Your task to perform on an android device: Clear all items from cart on target. Search for rayovac triple a on target, select the first entry, and add it to the cart. Image 0: 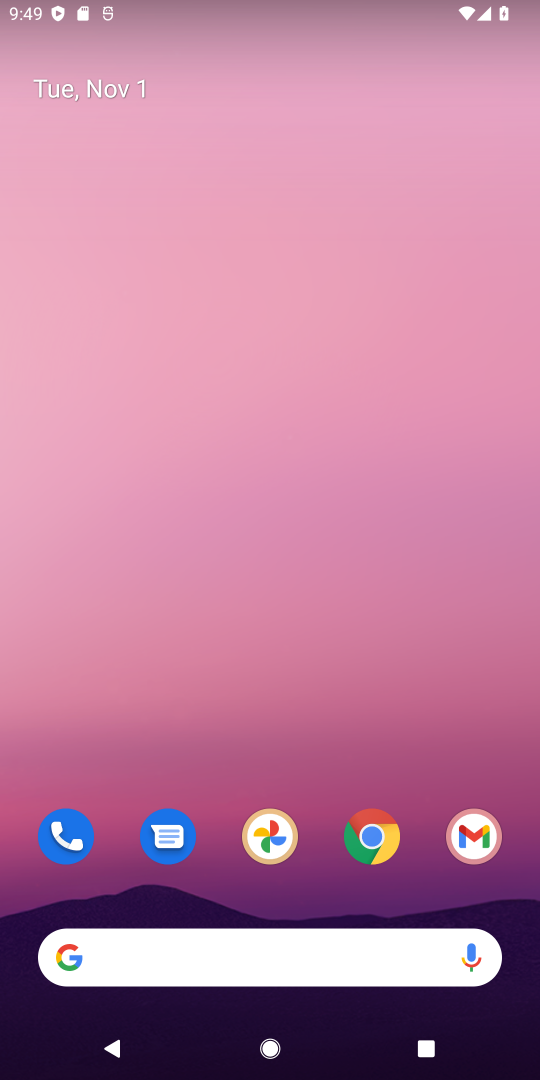
Step 0: click (372, 851)
Your task to perform on an android device: Clear all items from cart on target. Search for rayovac triple a on target, select the first entry, and add it to the cart. Image 1: 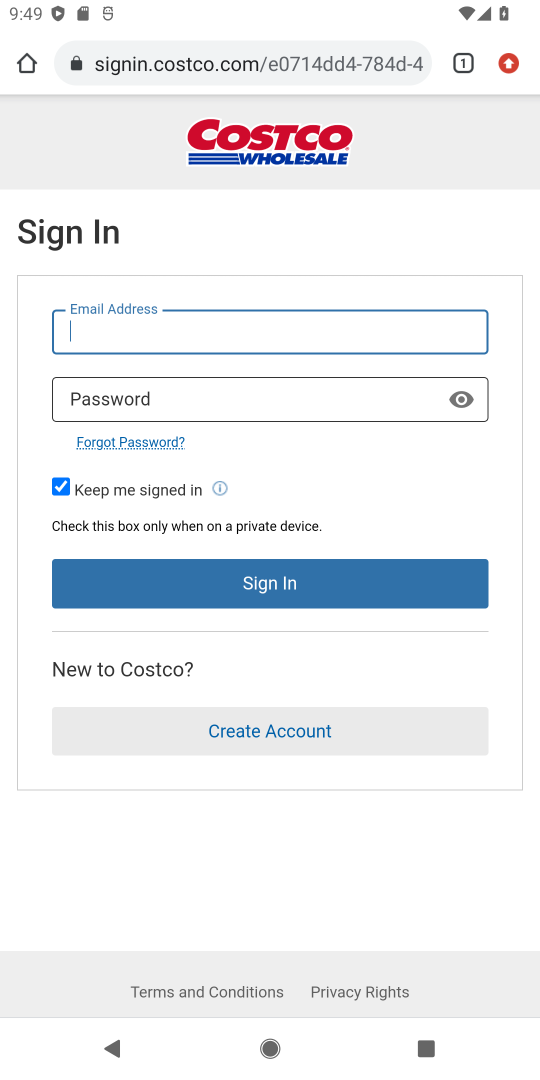
Step 1: click (281, 145)
Your task to perform on an android device: Clear all items from cart on target. Search for rayovac triple a on target, select the first entry, and add it to the cart. Image 2: 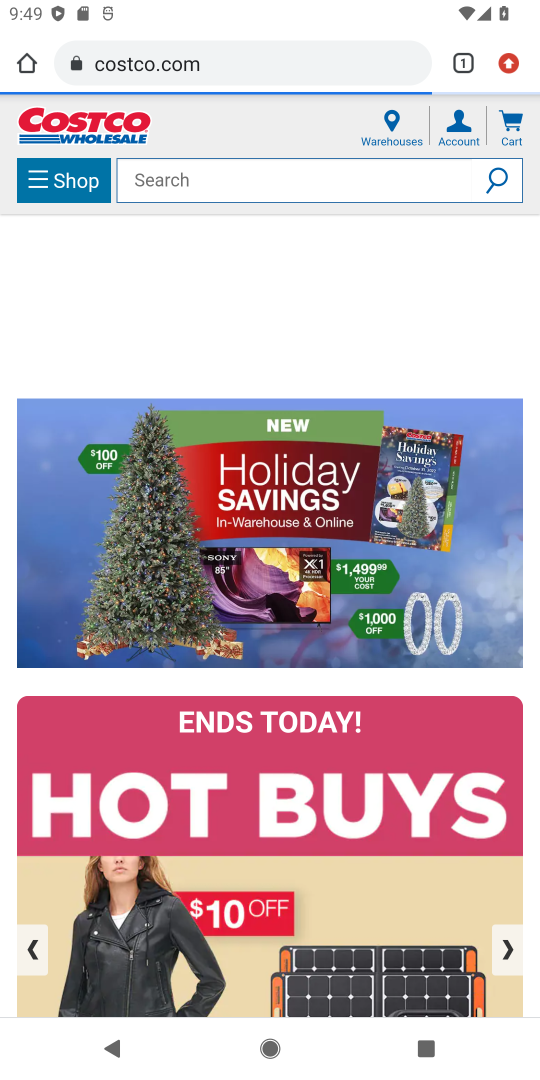
Step 2: click (264, 172)
Your task to perform on an android device: Clear all items from cart on target. Search for rayovac triple a on target, select the first entry, and add it to the cart. Image 3: 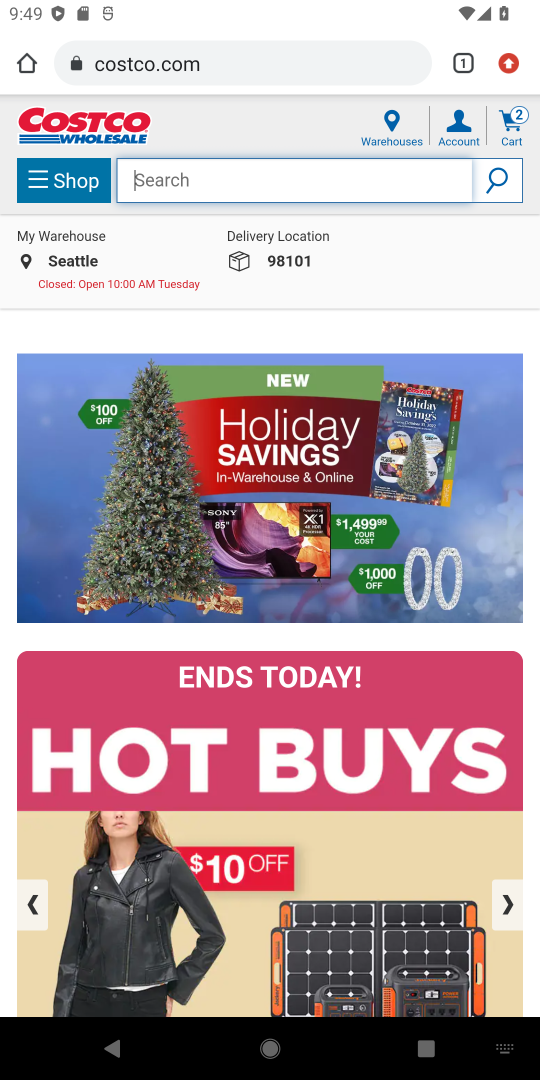
Step 3: type "target"
Your task to perform on an android device: Clear all items from cart on target. Search for rayovac triple a on target, select the first entry, and add it to the cart. Image 4: 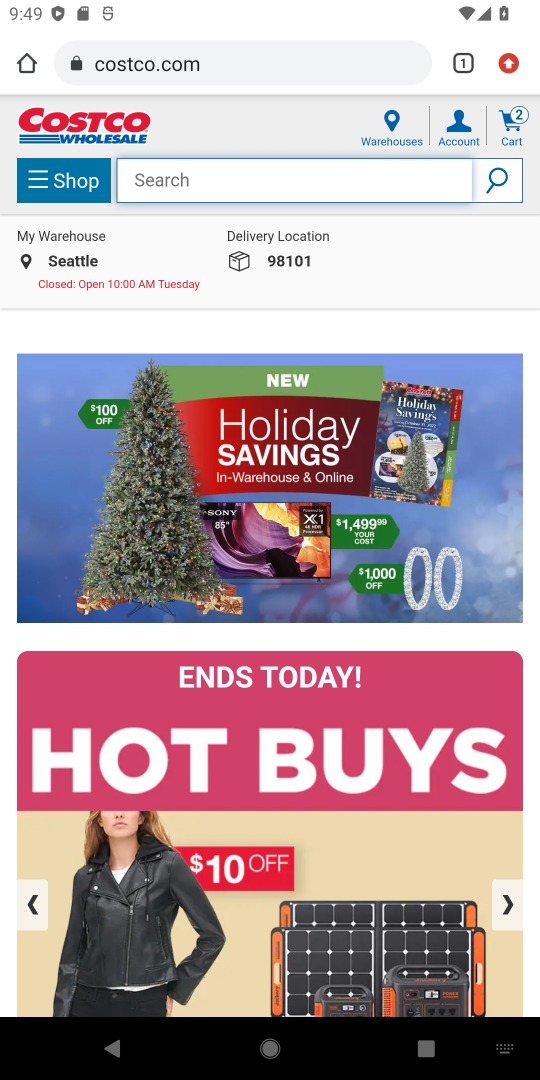
Step 4: type ""
Your task to perform on an android device: Clear all items from cart on target. Search for rayovac triple a on target, select the first entry, and add it to the cart. Image 5: 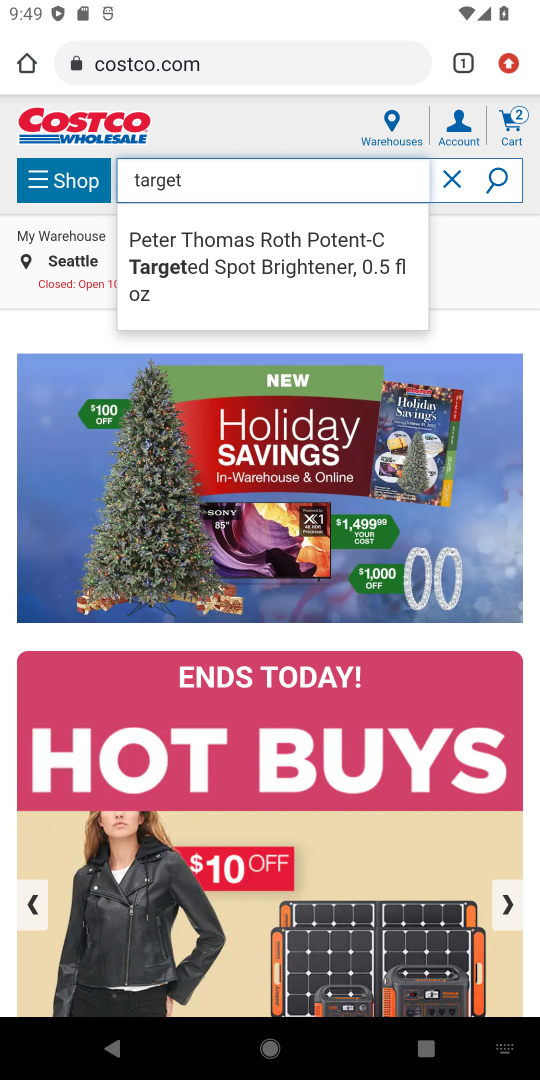
Step 5: press enter
Your task to perform on an android device: Clear all items from cart on target. Search for rayovac triple a on target, select the first entry, and add it to the cart. Image 6: 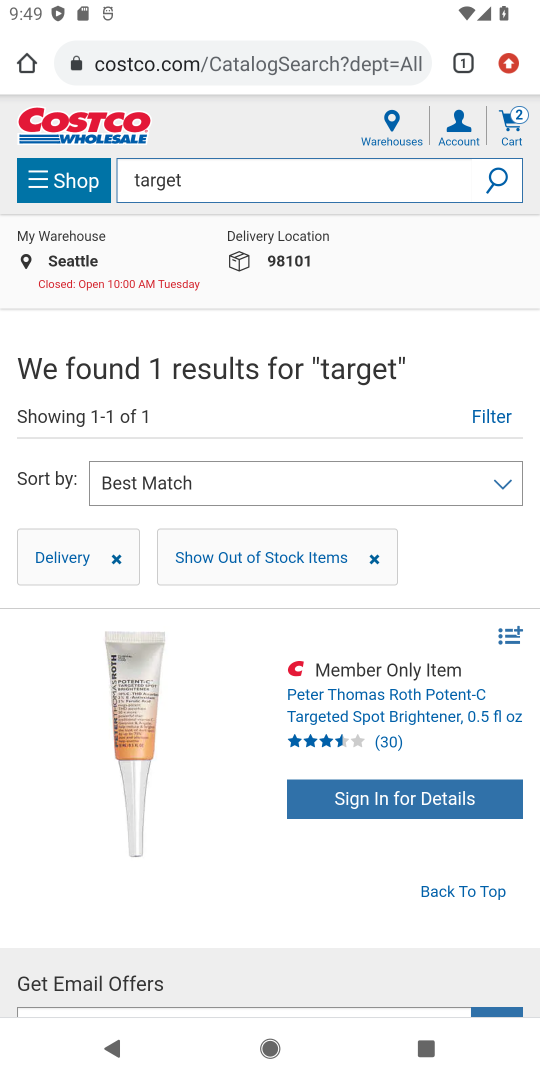
Step 6: click (310, 49)
Your task to perform on an android device: Clear all items from cart on target. Search for rayovac triple a on target, select the first entry, and add it to the cart. Image 7: 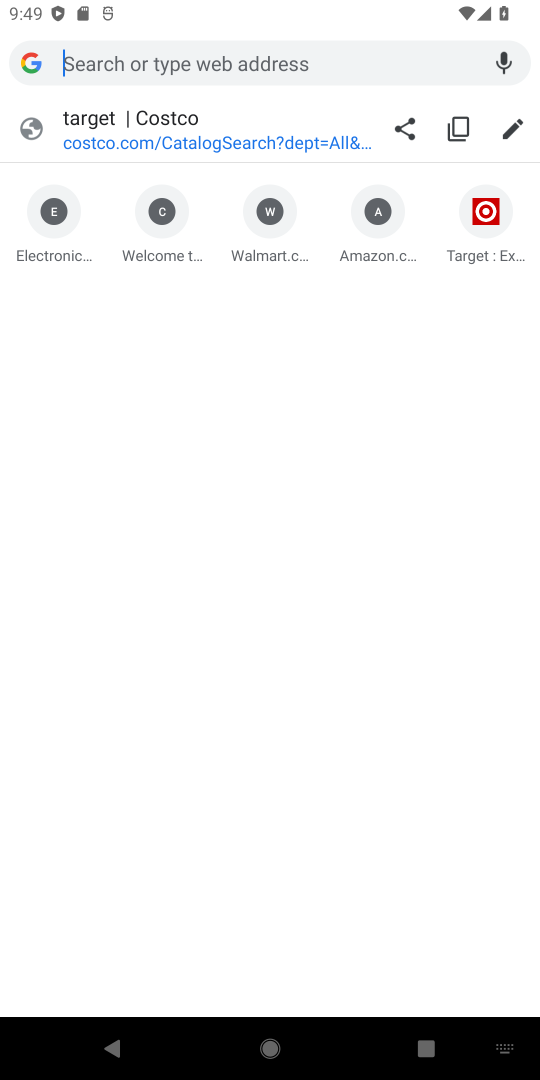
Step 7: type "target"
Your task to perform on an android device: Clear all items from cart on target. Search for rayovac triple a on target, select the first entry, and add it to the cart. Image 8: 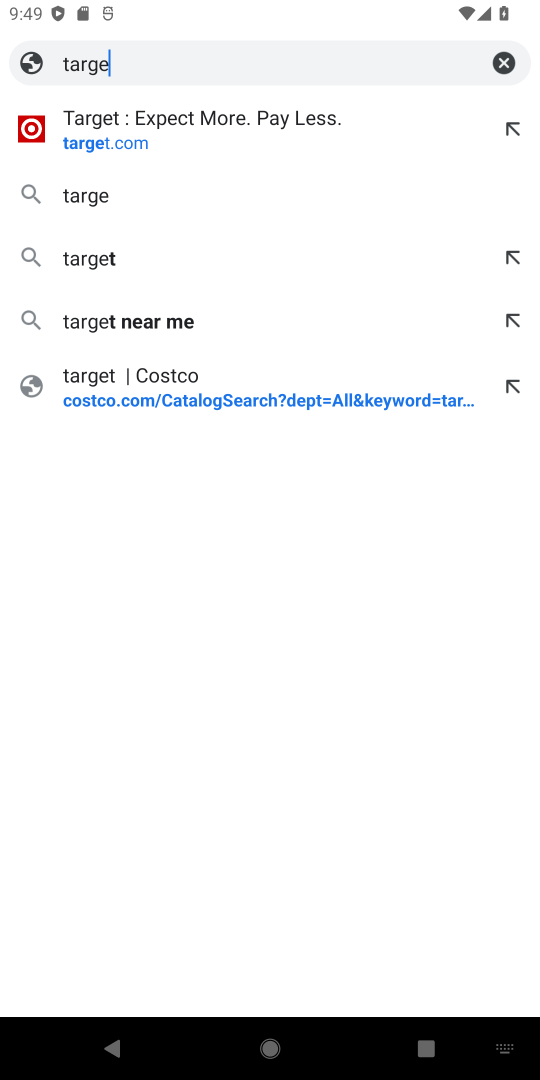
Step 8: type ""
Your task to perform on an android device: Clear all items from cart on target. Search for rayovac triple a on target, select the first entry, and add it to the cart. Image 9: 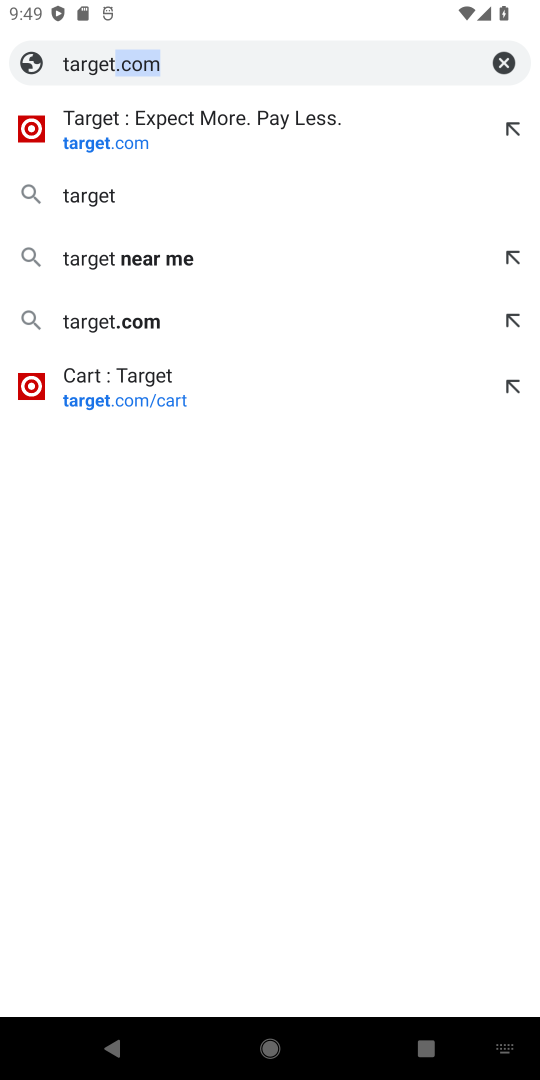
Step 9: click (112, 127)
Your task to perform on an android device: Clear all items from cart on target. Search for rayovac triple a on target, select the first entry, and add it to the cart. Image 10: 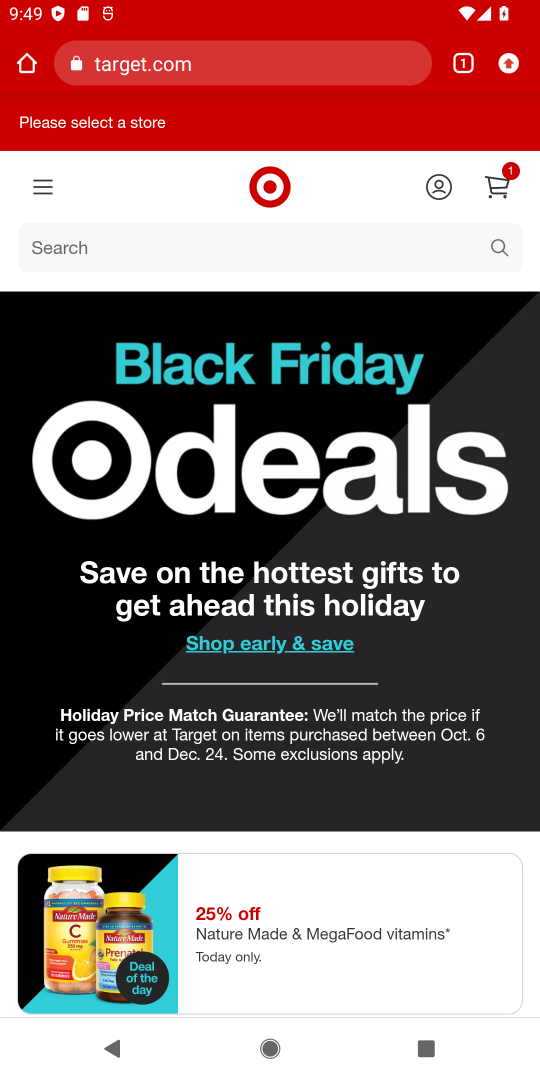
Step 10: click (514, 170)
Your task to perform on an android device: Clear all items from cart on target. Search for rayovac triple a on target, select the first entry, and add it to the cart. Image 11: 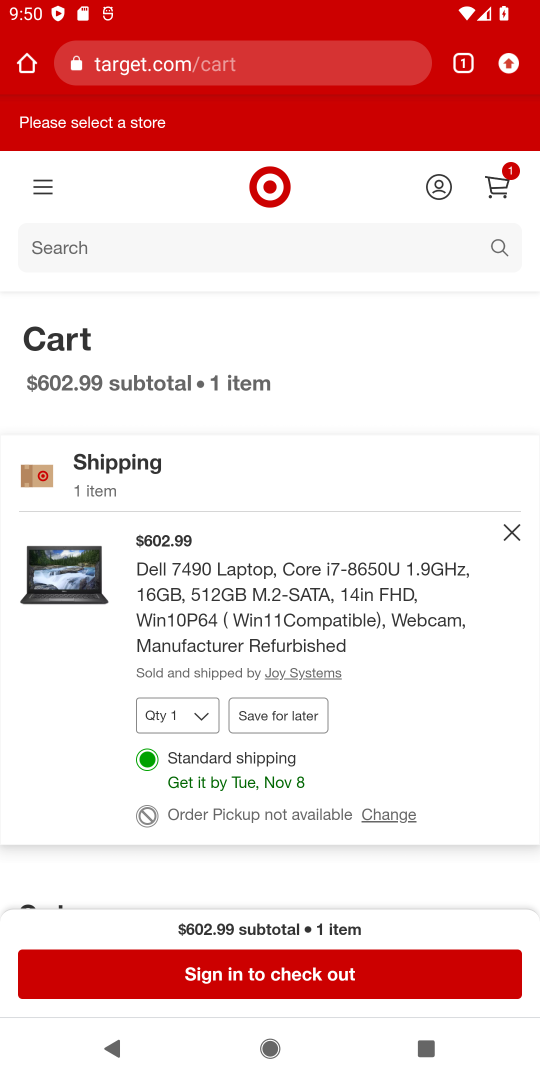
Step 11: click (175, 712)
Your task to perform on an android device: Clear all items from cart on target. Search for rayovac triple a on target, select the first entry, and add it to the cart. Image 12: 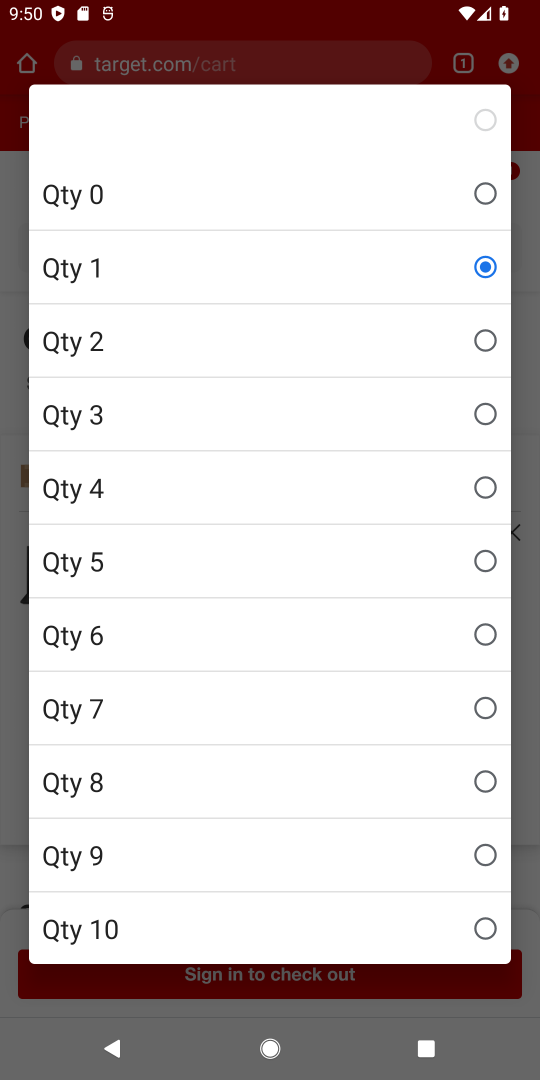
Step 12: click (220, 195)
Your task to perform on an android device: Clear all items from cart on target. Search for rayovac triple a on target, select the first entry, and add it to the cart. Image 13: 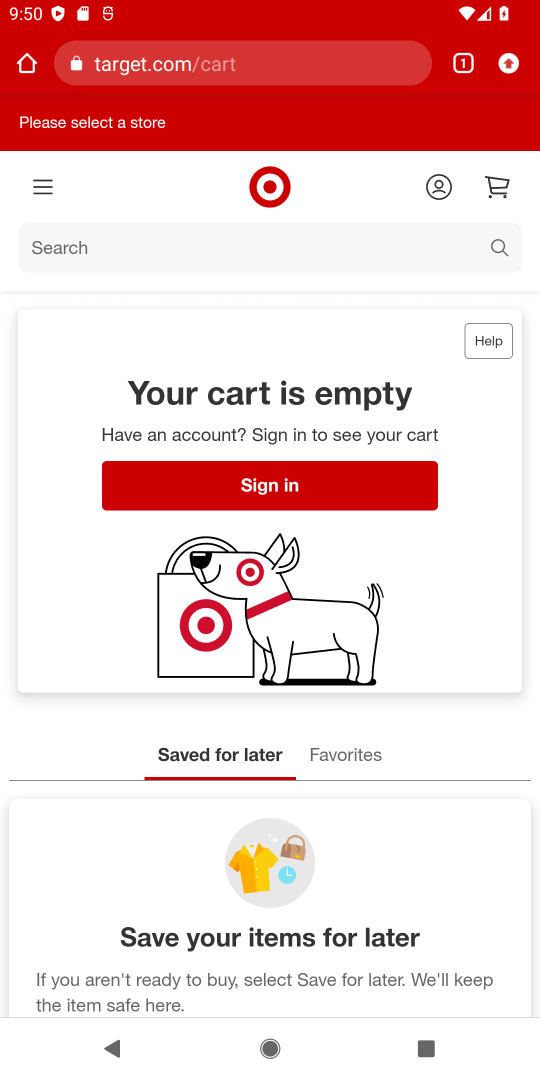
Step 13: click (302, 244)
Your task to perform on an android device: Clear all items from cart on target. Search for rayovac triple a on target, select the first entry, and add it to the cart. Image 14: 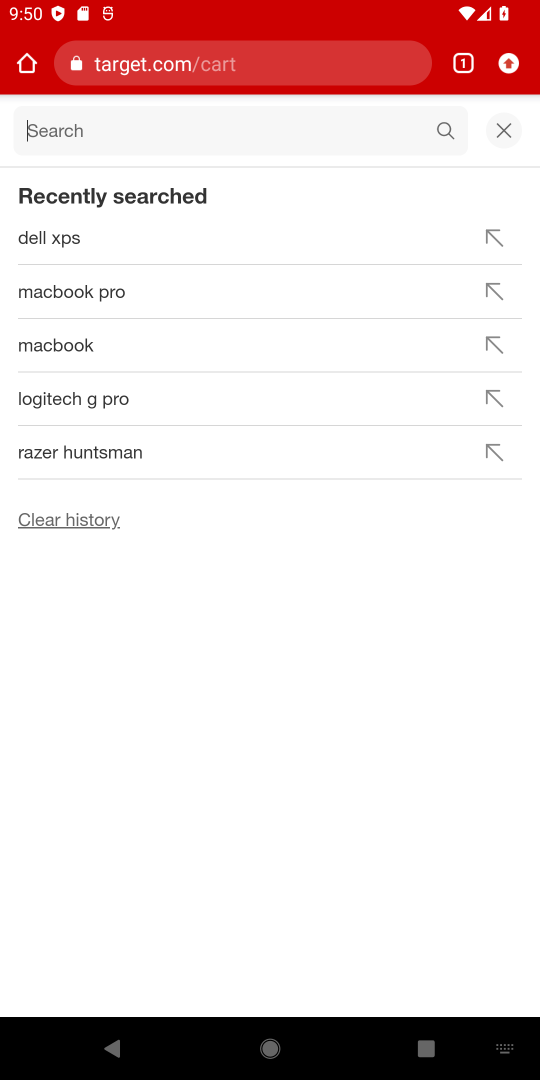
Step 14: type " rayovac triple "
Your task to perform on an android device: Clear all items from cart on target. Search for rayovac triple a on target, select the first entry, and add it to the cart. Image 15: 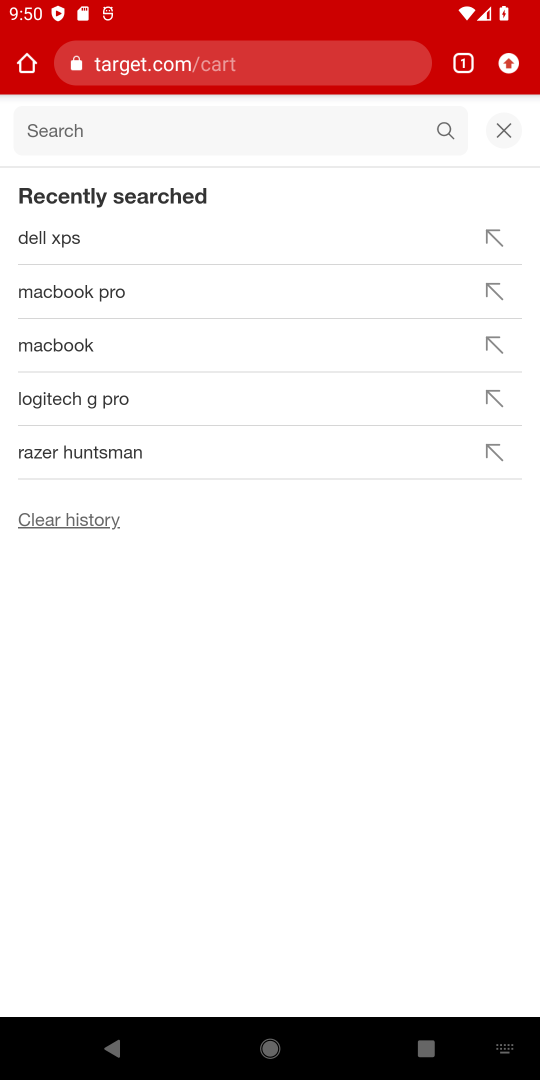
Step 15: type ""
Your task to perform on an android device: Clear all items from cart on target. Search for rayovac triple a on target, select the first entry, and add it to the cart. Image 16: 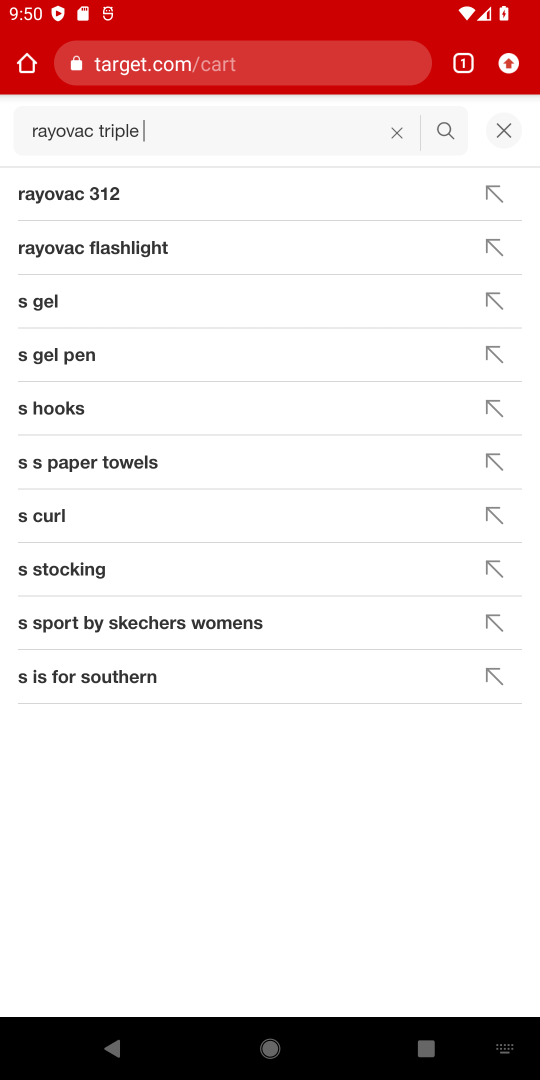
Step 16: press enter
Your task to perform on an android device: Clear all items from cart on target. Search for rayovac triple a on target, select the first entry, and add it to the cart. Image 17: 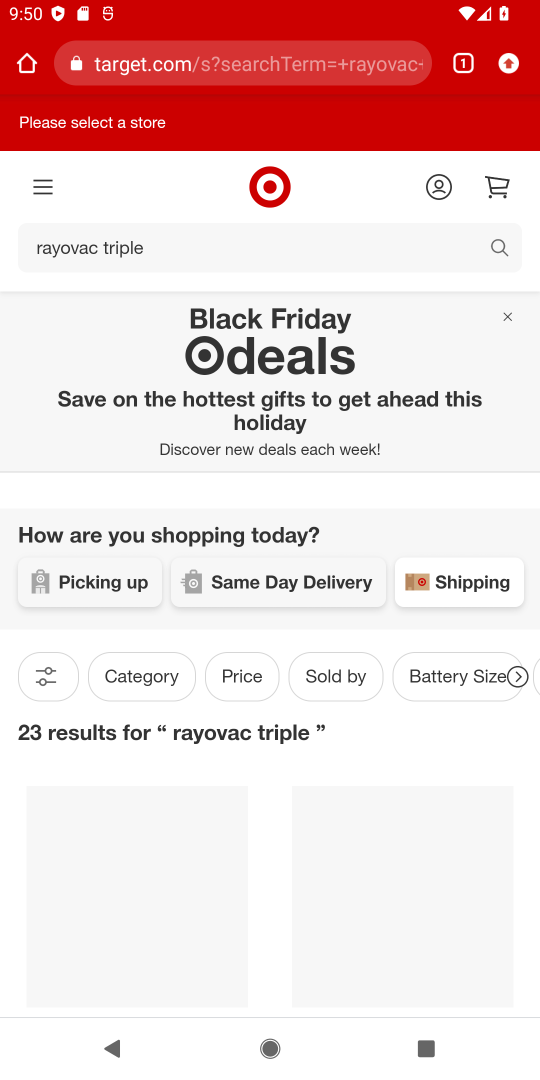
Step 17: drag from (481, 875) to (447, 393)
Your task to perform on an android device: Clear all items from cart on target. Search for rayovac triple a on target, select the first entry, and add it to the cart. Image 18: 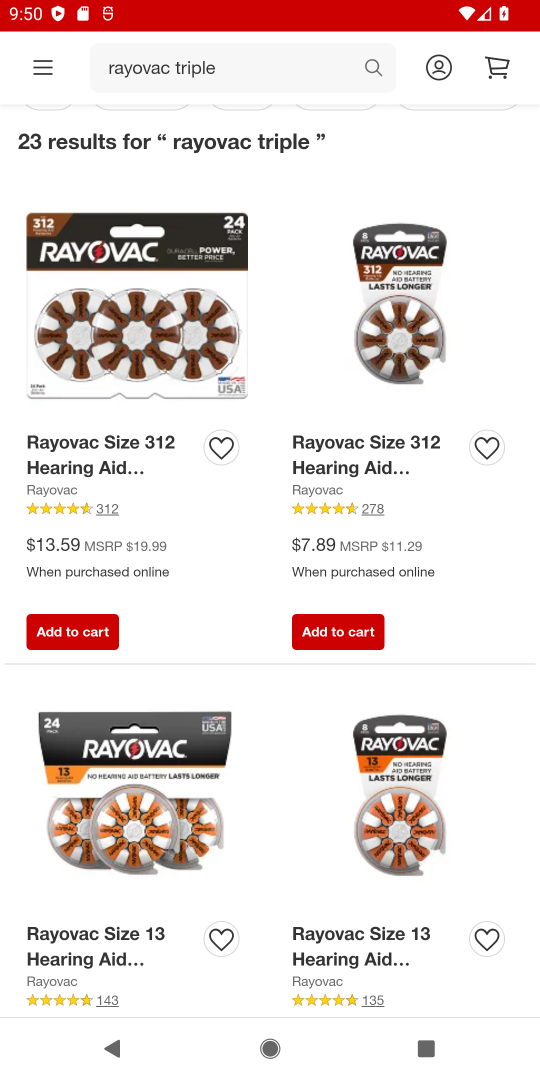
Step 18: click (125, 416)
Your task to perform on an android device: Clear all items from cart on target. Search for rayovac triple a on target, select the first entry, and add it to the cart. Image 19: 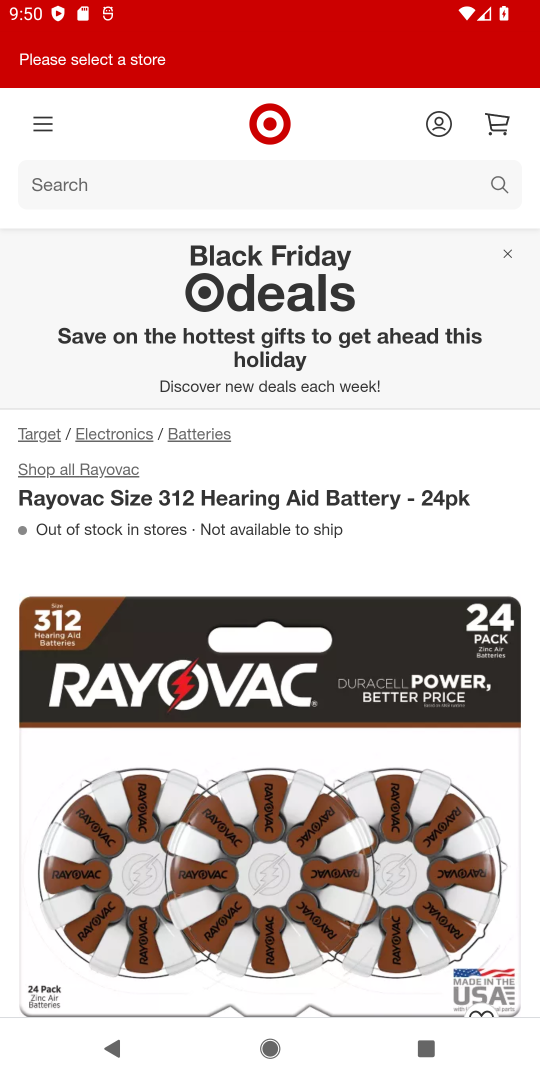
Step 19: drag from (235, 513) to (299, 130)
Your task to perform on an android device: Clear all items from cart on target. Search for rayovac triple a on target, select the first entry, and add it to the cart. Image 20: 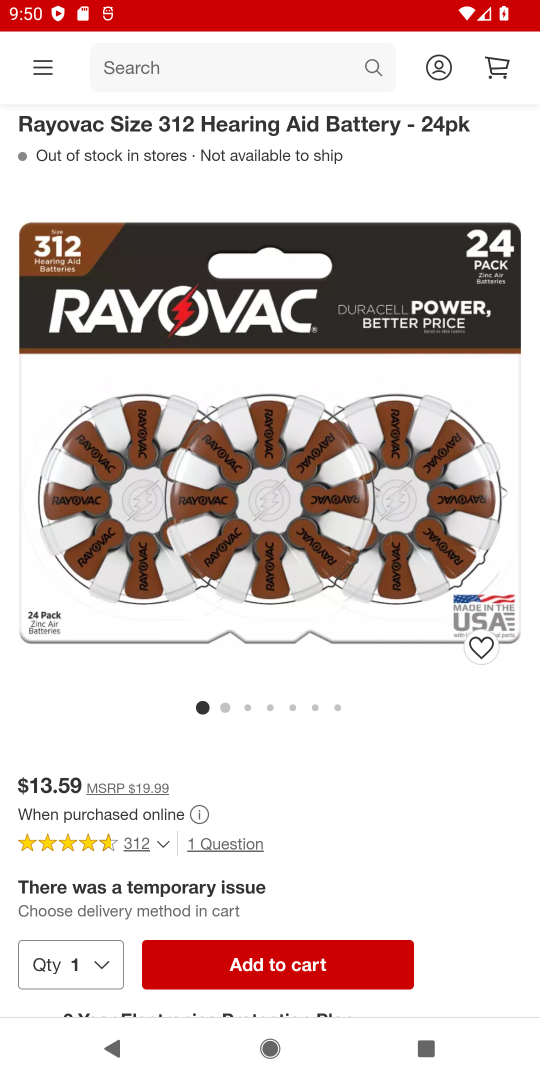
Step 20: click (275, 936)
Your task to perform on an android device: Clear all items from cart on target. Search for rayovac triple a on target, select the first entry, and add it to the cart. Image 21: 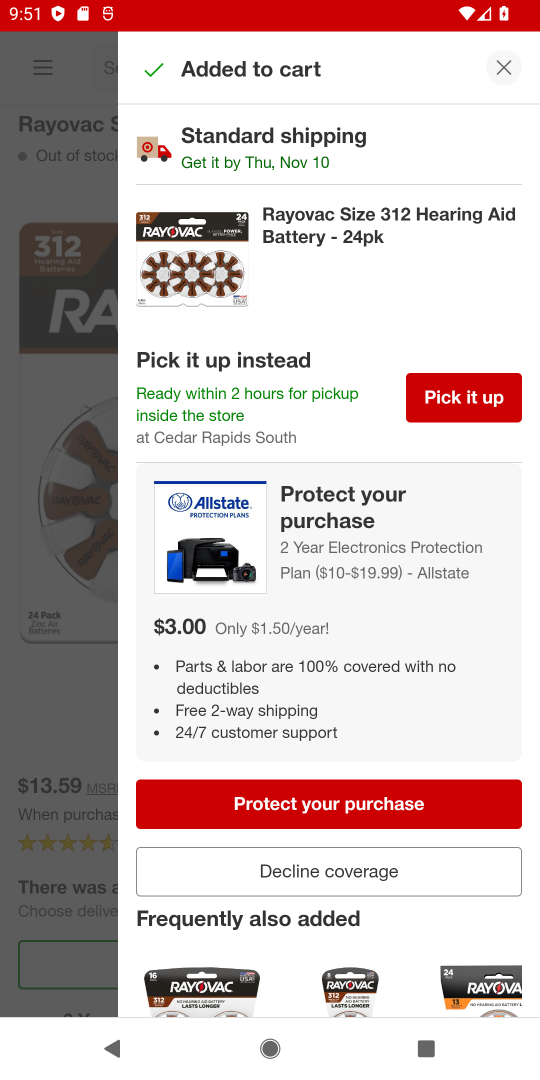
Step 21: click (305, 878)
Your task to perform on an android device: Clear all items from cart on target. Search for rayovac triple a on target, select the first entry, and add it to the cart. Image 22: 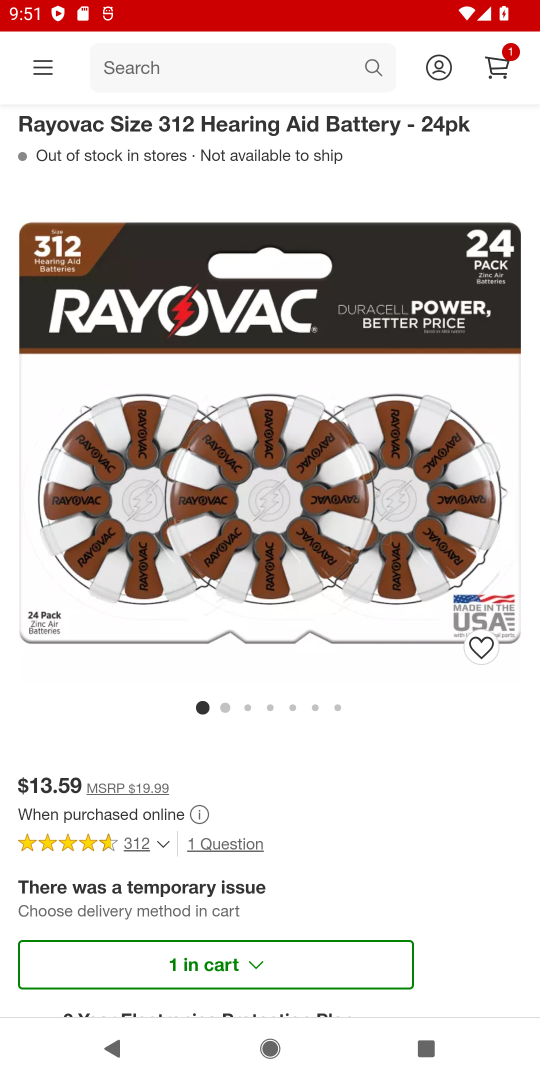
Step 22: drag from (315, 725) to (329, 482)
Your task to perform on an android device: Clear all items from cart on target. Search for rayovac triple a on target, select the first entry, and add it to the cart. Image 23: 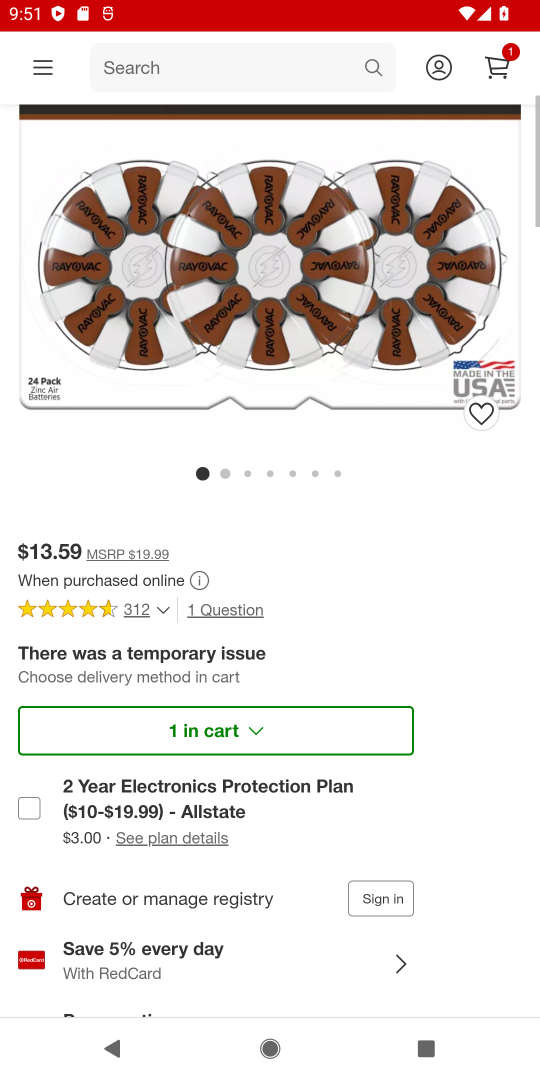
Step 23: drag from (346, 792) to (325, 532)
Your task to perform on an android device: Clear all items from cart on target. Search for rayovac triple a on target, select the first entry, and add it to the cart. Image 24: 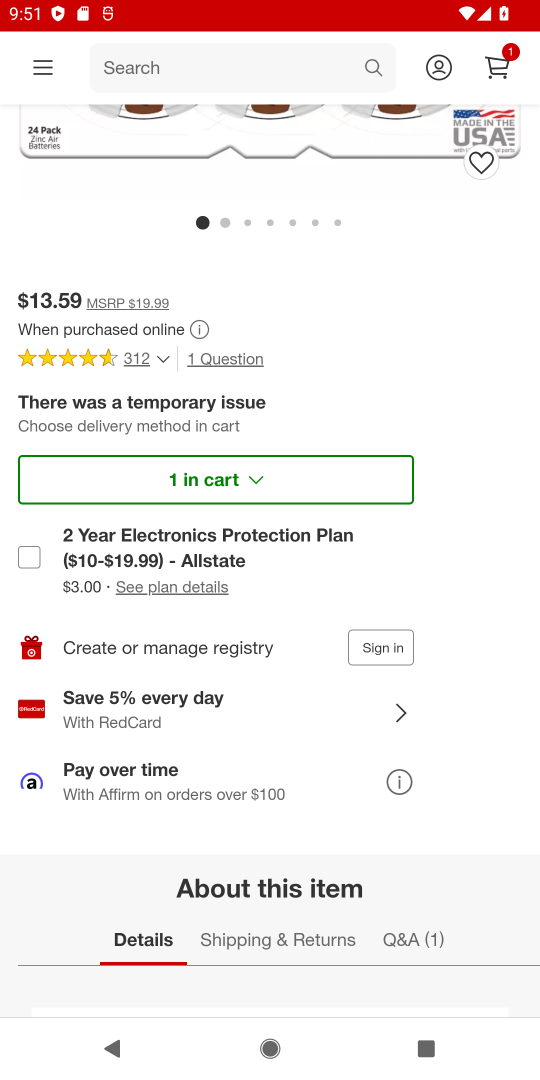
Step 24: click (505, 61)
Your task to perform on an android device: Clear all items from cart on target. Search for rayovac triple a on target, select the first entry, and add it to the cart. Image 25: 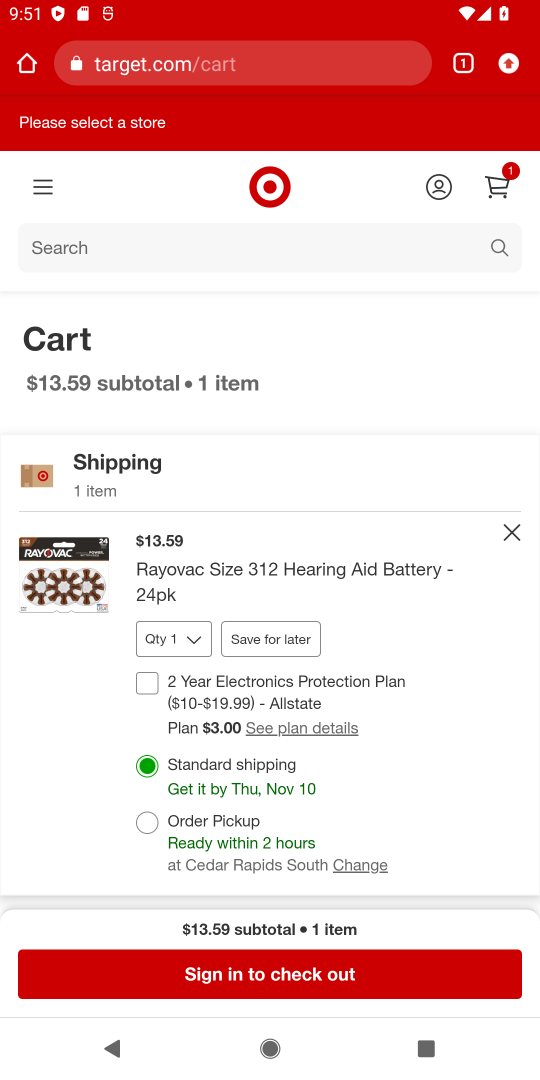
Step 25: click (263, 949)
Your task to perform on an android device: Clear all items from cart on target. Search for rayovac triple a on target, select the first entry, and add it to the cart. Image 26: 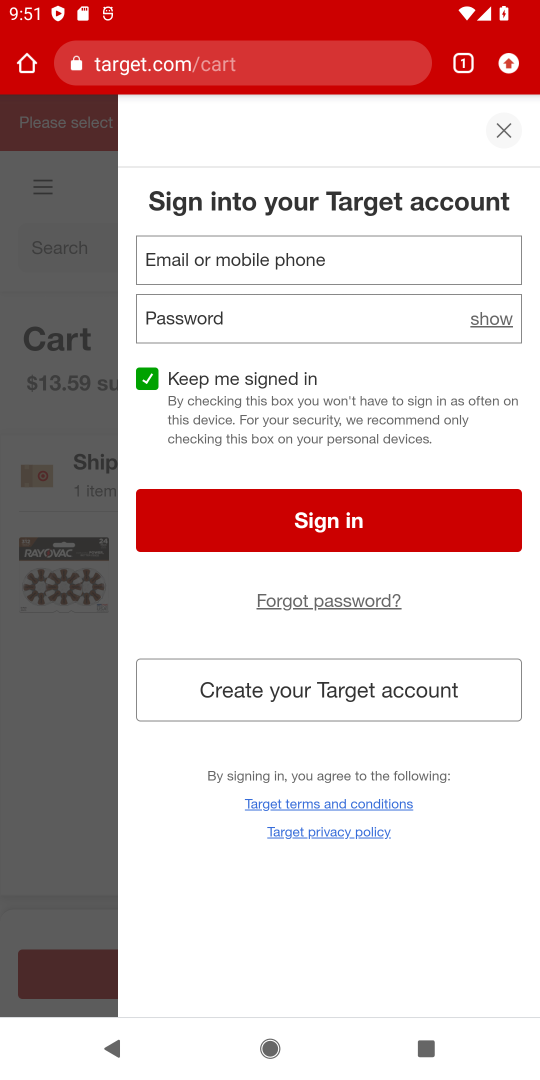
Step 26: click (510, 131)
Your task to perform on an android device: Clear all items from cart on target. Search for rayovac triple a on target, select the first entry, and add it to the cart. Image 27: 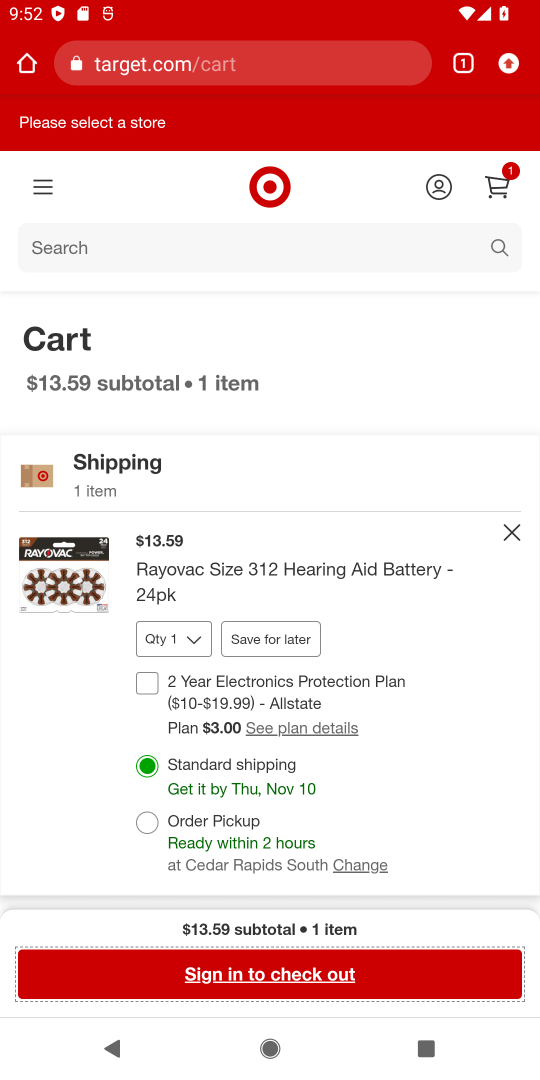
Step 27: task complete